Your task to perform on an android device: Go to eBay Image 0: 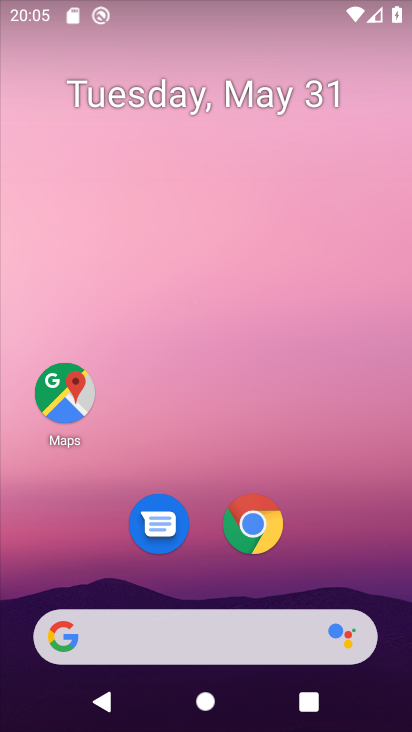
Step 0: click (257, 642)
Your task to perform on an android device: Go to eBay Image 1: 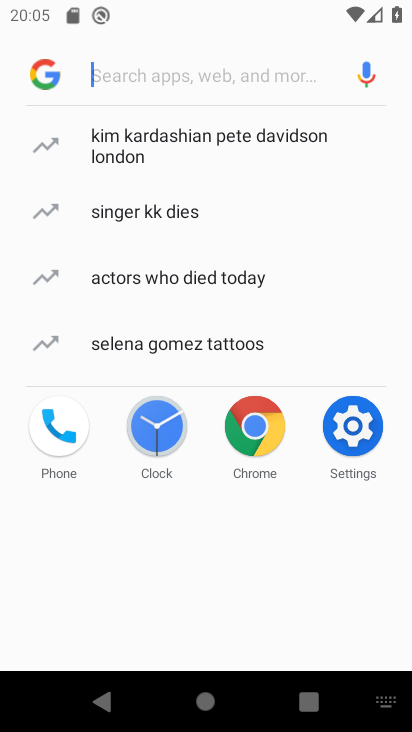
Step 1: type "ebay"
Your task to perform on an android device: Go to eBay Image 2: 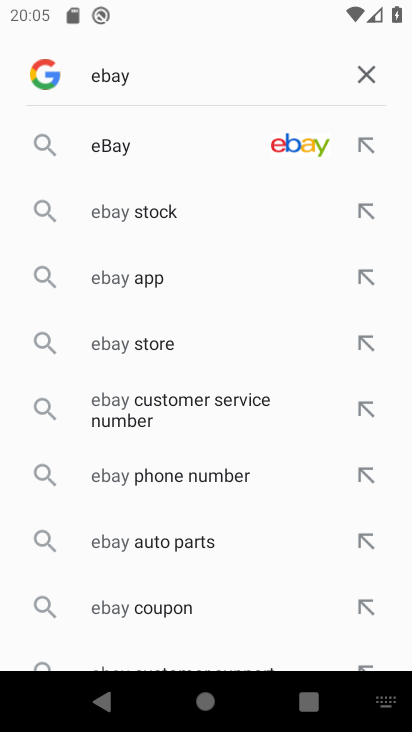
Step 2: click (107, 147)
Your task to perform on an android device: Go to eBay Image 3: 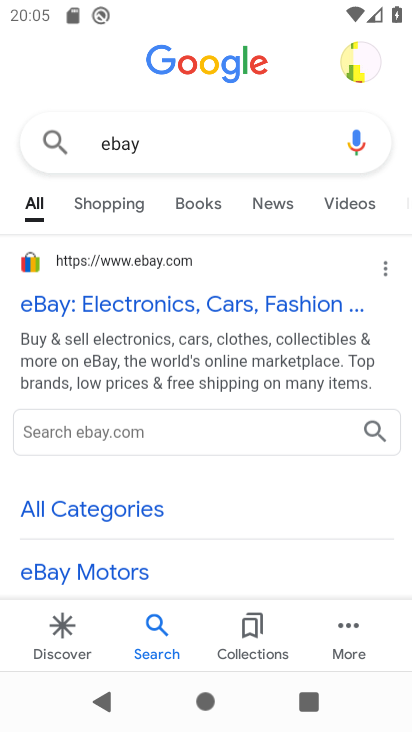
Step 3: click (46, 299)
Your task to perform on an android device: Go to eBay Image 4: 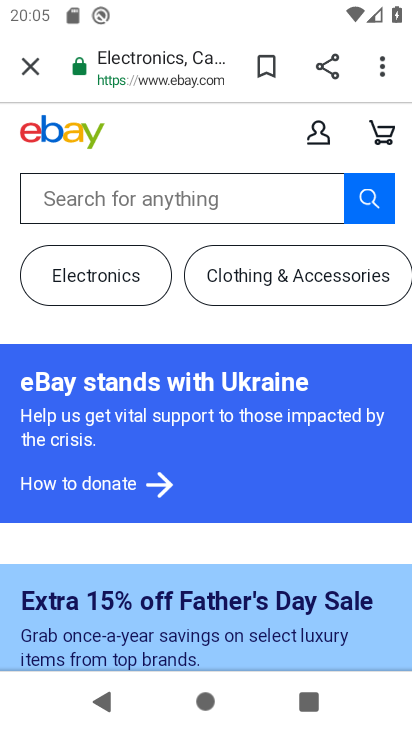
Step 4: task complete